Your task to perform on an android device: turn off notifications in google photos Image 0: 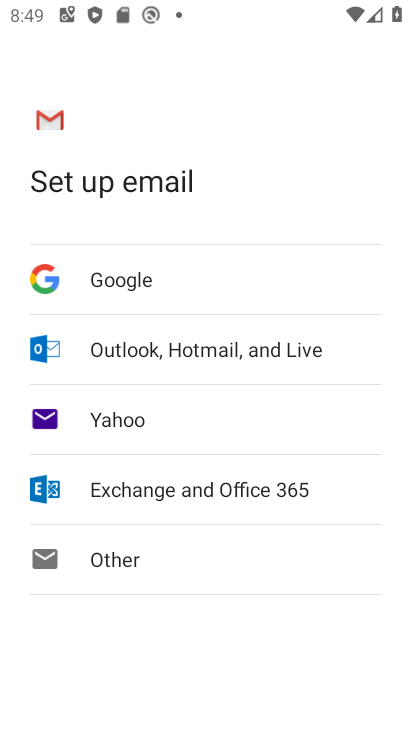
Step 0: press home button
Your task to perform on an android device: turn off notifications in google photos Image 1: 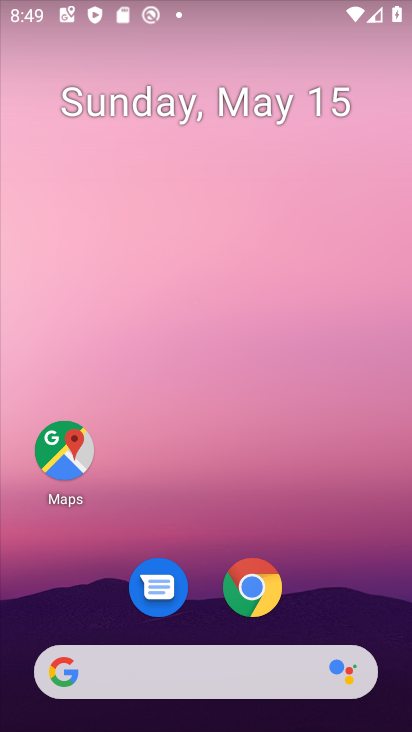
Step 1: drag from (386, 662) to (303, 109)
Your task to perform on an android device: turn off notifications in google photos Image 2: 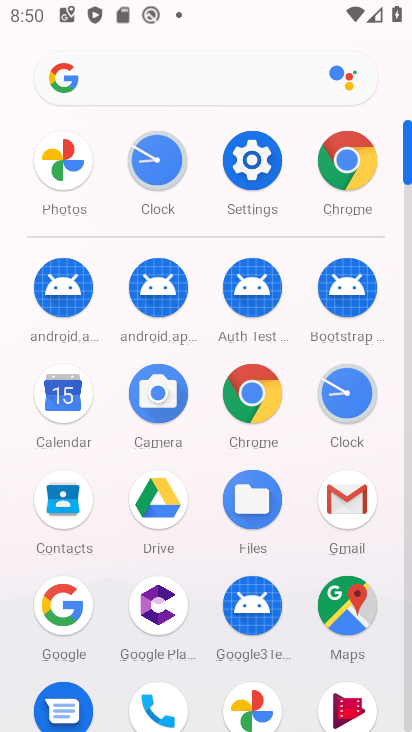
Step 2: click (267, 709)
Your task to perform on an android device: turn off notifications in google photos Image 3: 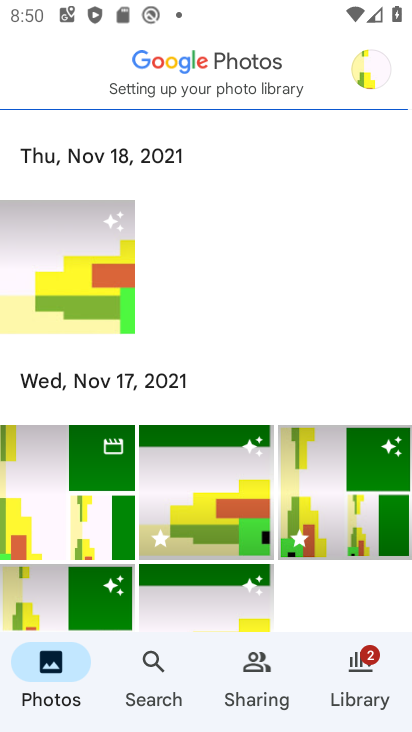
Step 3: click (384, 67)
Your task to perform on an android device: turn off notifications in google photos Image 4: 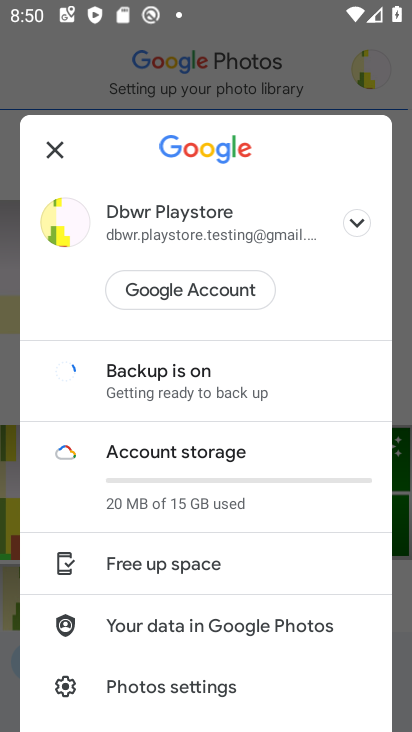
Step 4: drag from (154, 665) to (161, 243)
Your task to perform on an android device: turn off notifications in google photos Image 5: 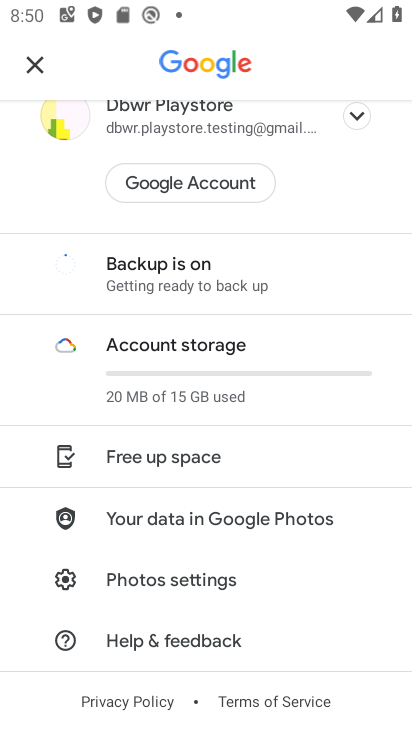
Step 5: click (197, 584)
Your task to perform on an android device: turn off notifications in google photos Image 6: 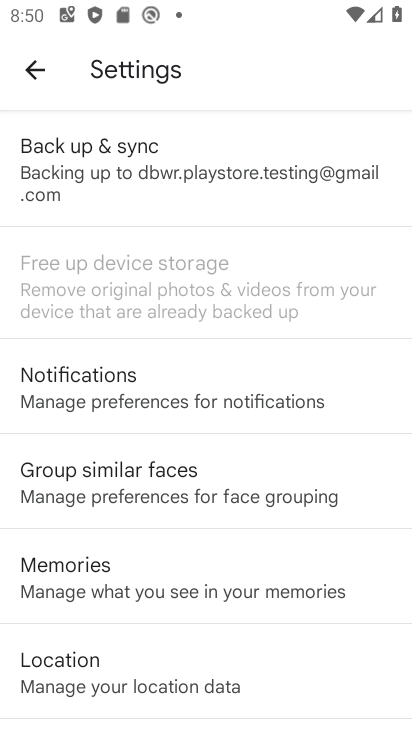
Step 6: click (241, 410)
Your task to perform on an android device: turn off notifications in google photos Image 7: 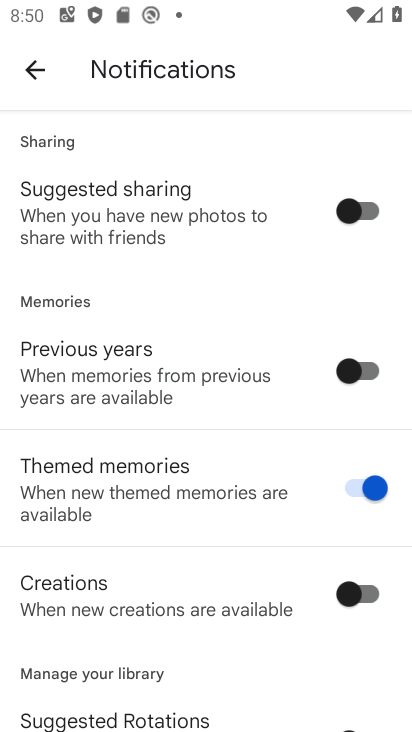
Step 7: task complete